Your task to perform on an android device: toggle notification dots Image 0: 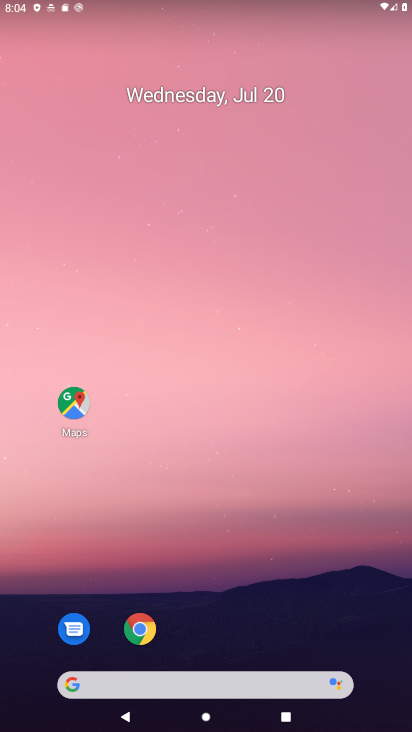
Step 0: drag from (270, 434) to (270, 182)
Your task to perform on an android device: toggle notification dots Image 1: 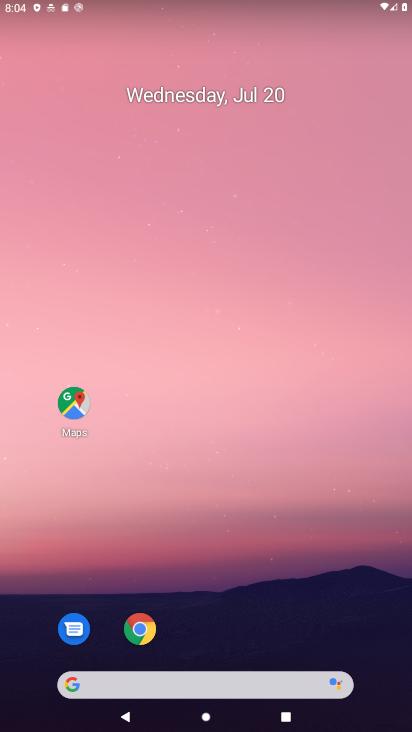
Step 1: drag from (257, 464) to (257, 34)
Your task to perform on an android device: toggle notification dots Image 2: 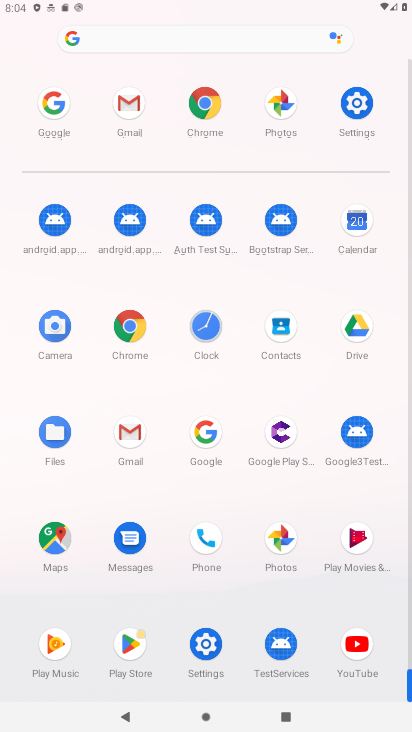
Step 2: click (351, 110)
Your task to perform on an android device: toggle notification dots Image 3: 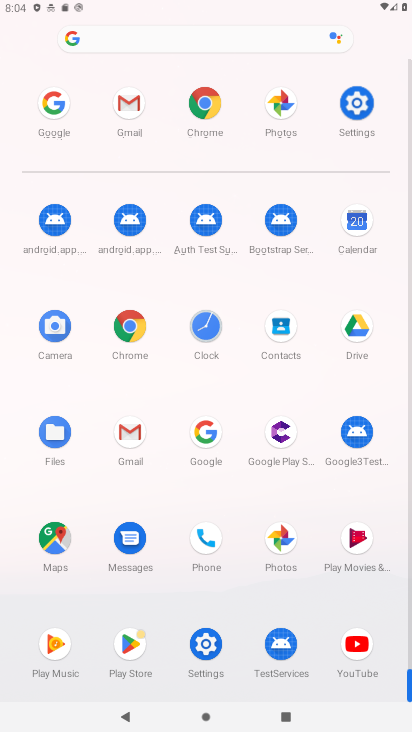
Step 3: click (352, 108)
Your task to perform on an android device: toggle notification dots Image 4: 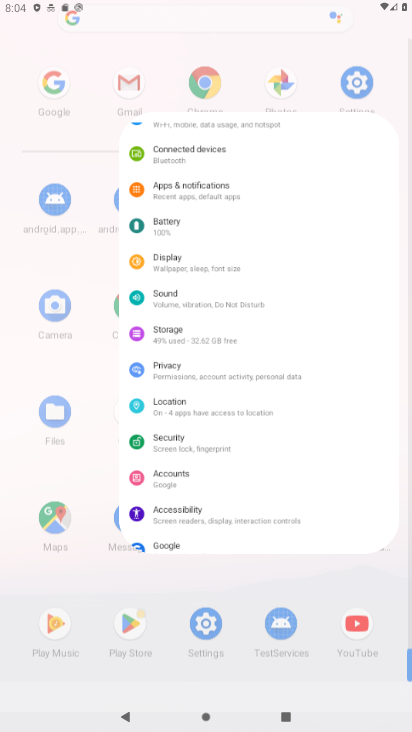
Step 4: click (352, 108)
Your task to perform on an android device: toggle notification dots Image 5: 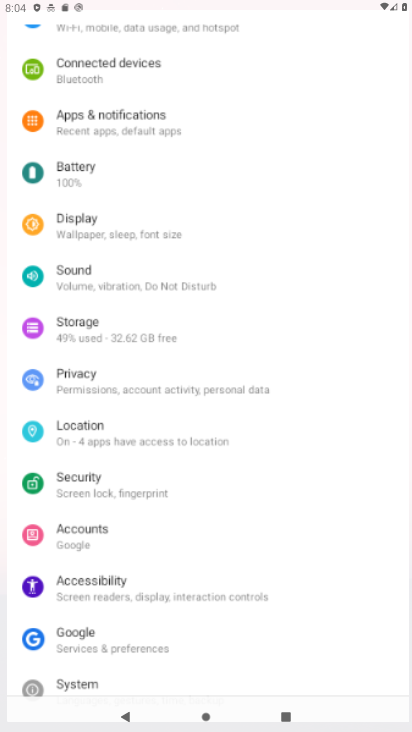
Step 5: click (353, 109)
Your task to perform on an android device: toggle notification dots Image 6: 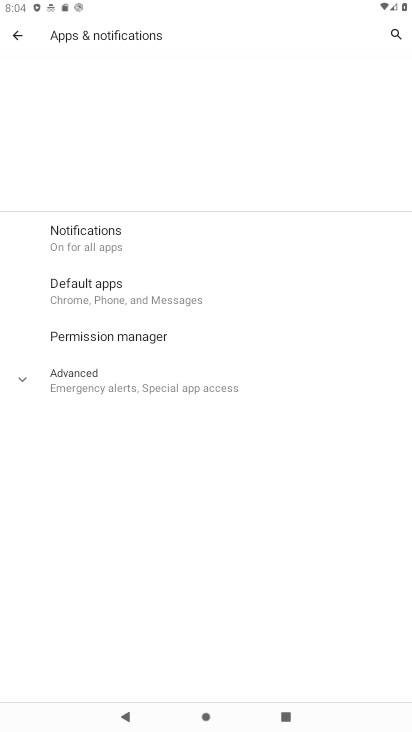
Step 6: drag from (156, 500) to (123, 55)
Your task to perform on an android device: toggle notification dots Image 7: 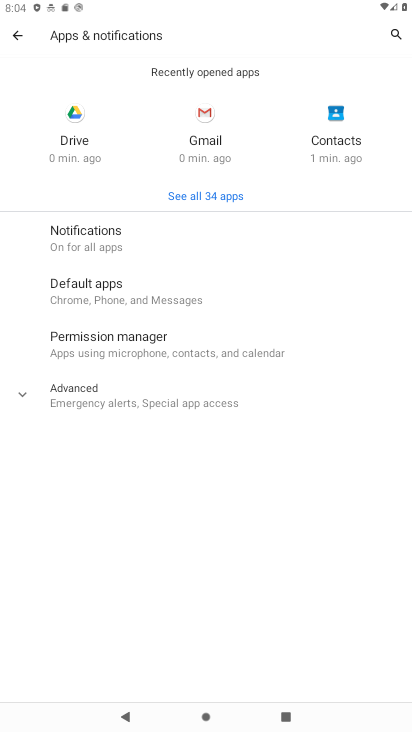
Step 7: click (13, 26)
Your task to perform on an android device: toggle notification dots Image 8: 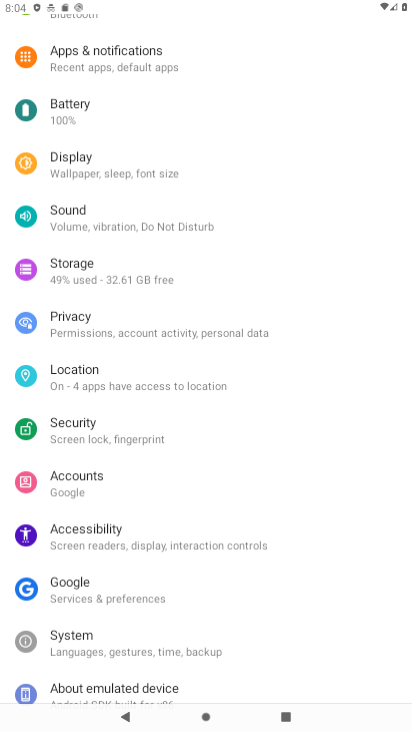
Step 8: click (87, 233)
Your task to perform on an android device: toggle notification dots Image 9: 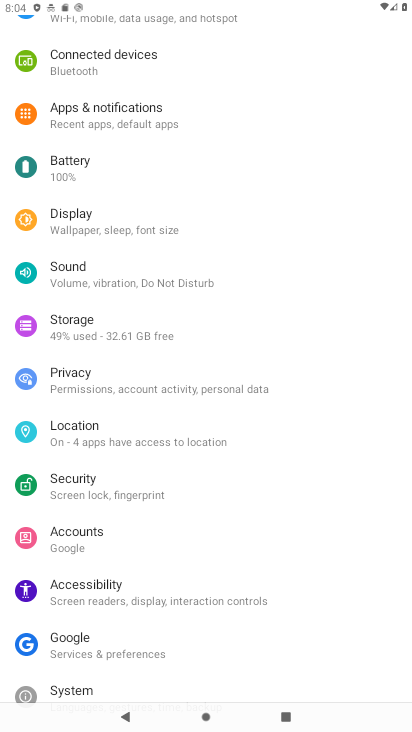
Step 9: click (118, 117)
Your task to perform on an android device: toggle notification dots Image 10: 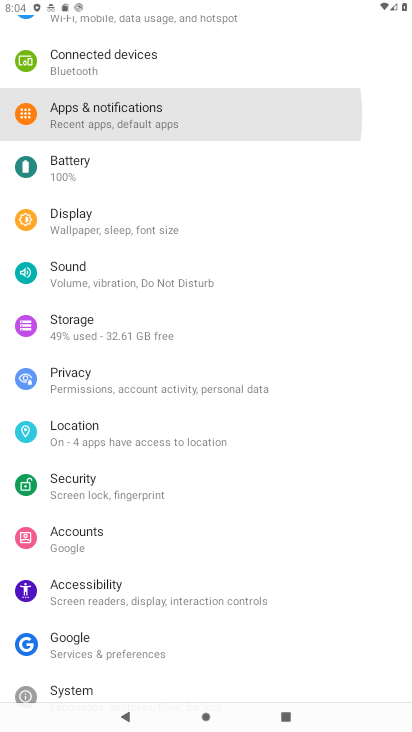
Step 10: click (119, 116)
Your task to perform on an android device: toggle notification dots Image 11: 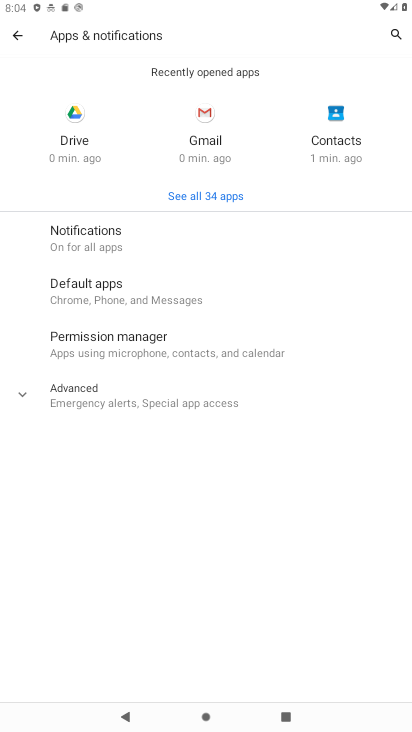
Step 11: click (87, 234)
Your task to perform on an android device: toggle notification dots Image 12: 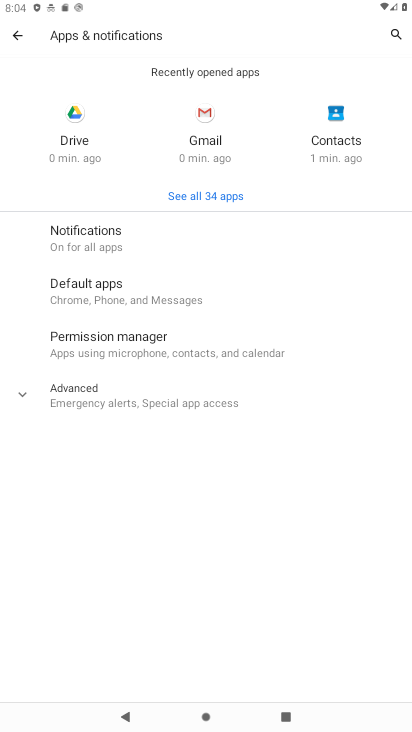
Step 12: click (87, 234)
Your task to perform on an android device: toggle notification dots Image 13: 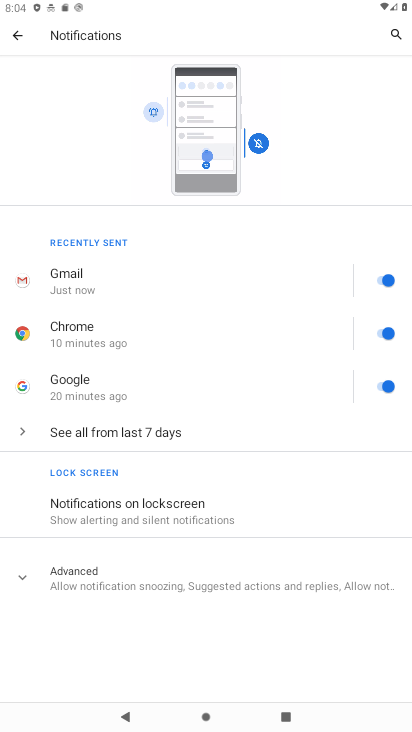
Step 13: click (91, 584)
Your task to perform on an android device: toggle notification dots Image 14: 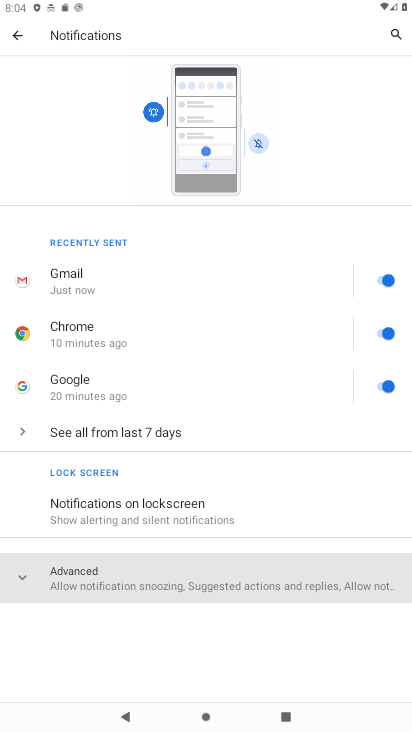
Step 14: click (91, 584)
Your task to perform on an android device: toggle notification dots Image 15: 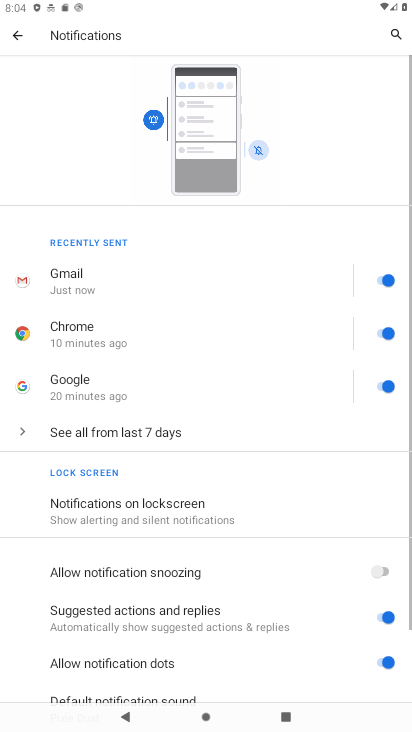
Step 15: drag from (201, 578) to (201, 252)
Your task to perform on an android device: toggle notification dots Image 16: 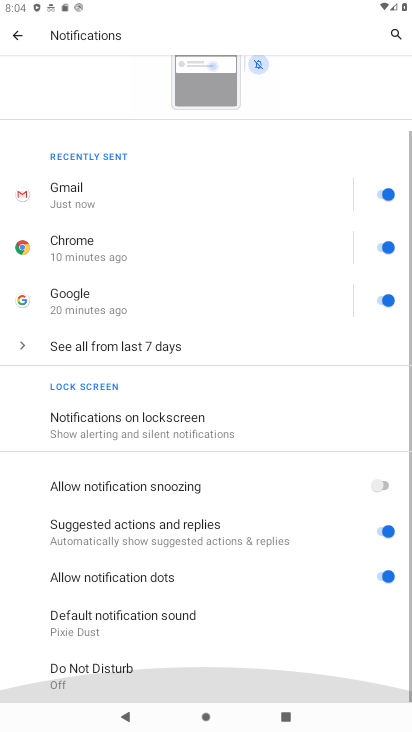
Step 16: drag from (286, 588) to (311, 294)
Your task to perform on an android device: toggle notification dots Image 17: 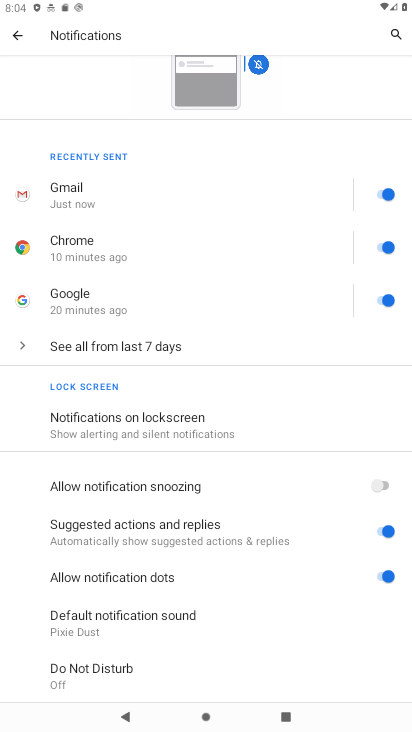
Step 17: click (385, 575)
Your task to perform on an android device: toggle notification dots Image 18: 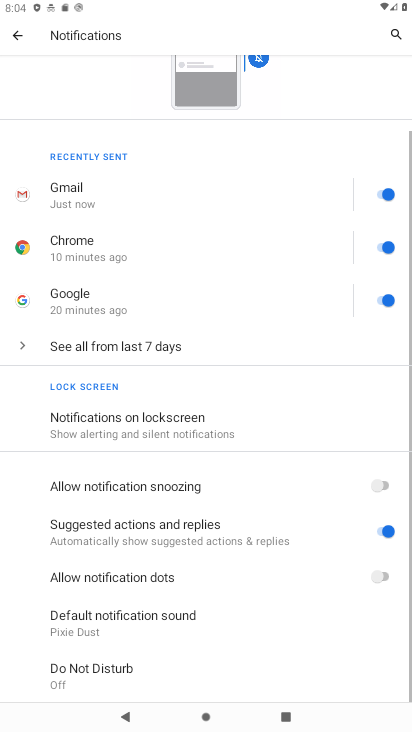
Step 18: click (378, 576)
Your task to perform on an android device: toggle notification dots Image 19: 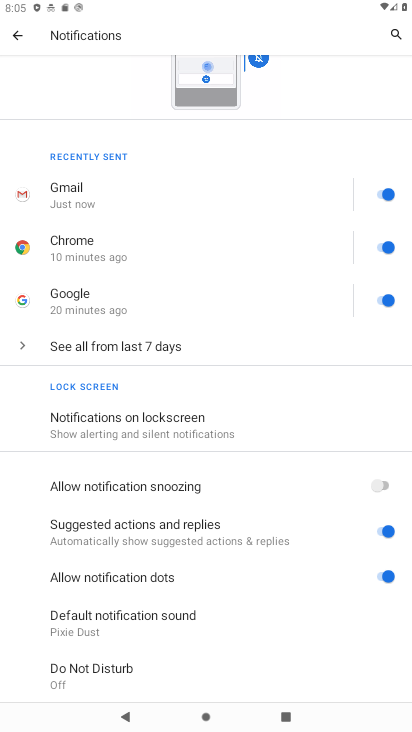
Step 19: click (389, 573)
Your task to perform on an android device: toggle notification dots Image 20: 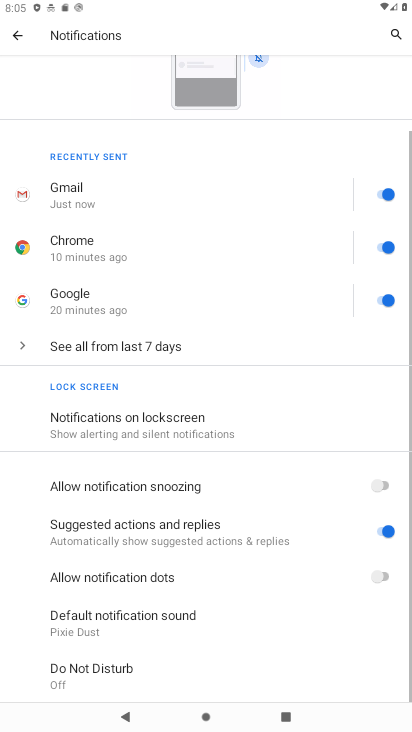
Step 20: task complete